Your task to perform on an android device: Open wifi settings Image 0: 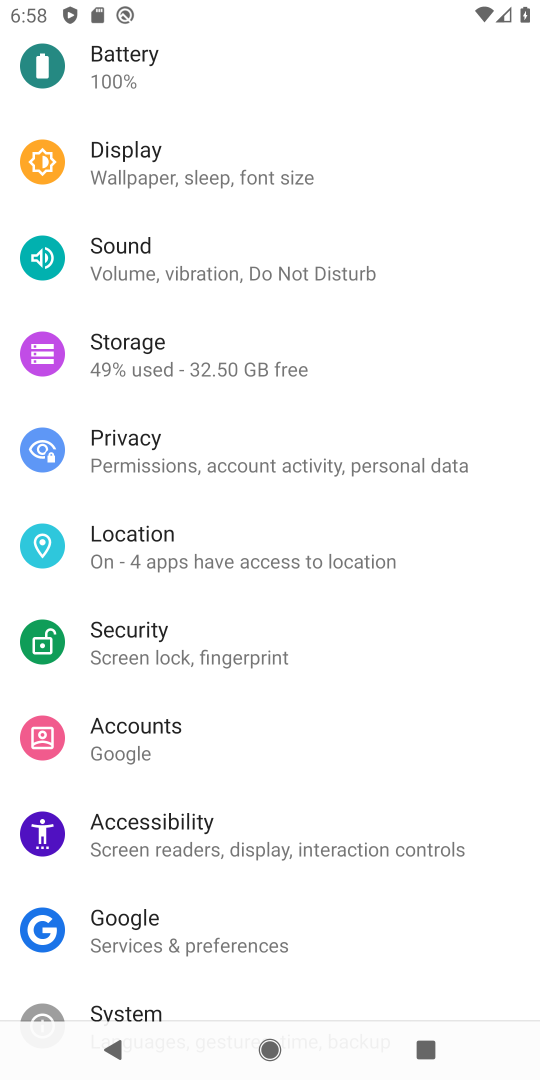
Step 0: drag from (368, 360) to (213, 807)
Your task to perform on an android device: Open wifi settings Image 1: 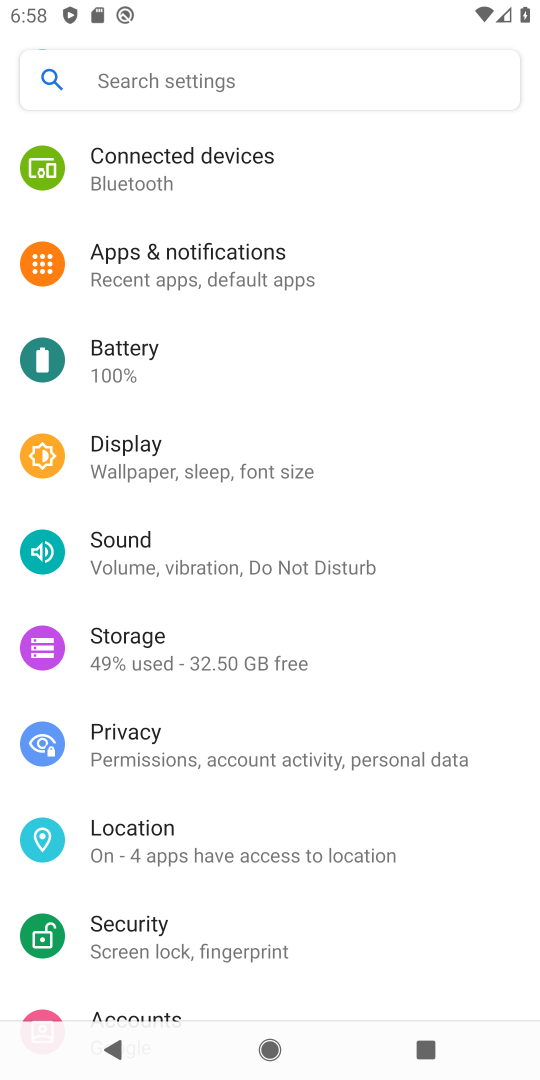
Step 1: drag from (234, 200) to (217, 624)
Your task to perform on an android device: Open wifi settings Image 2: 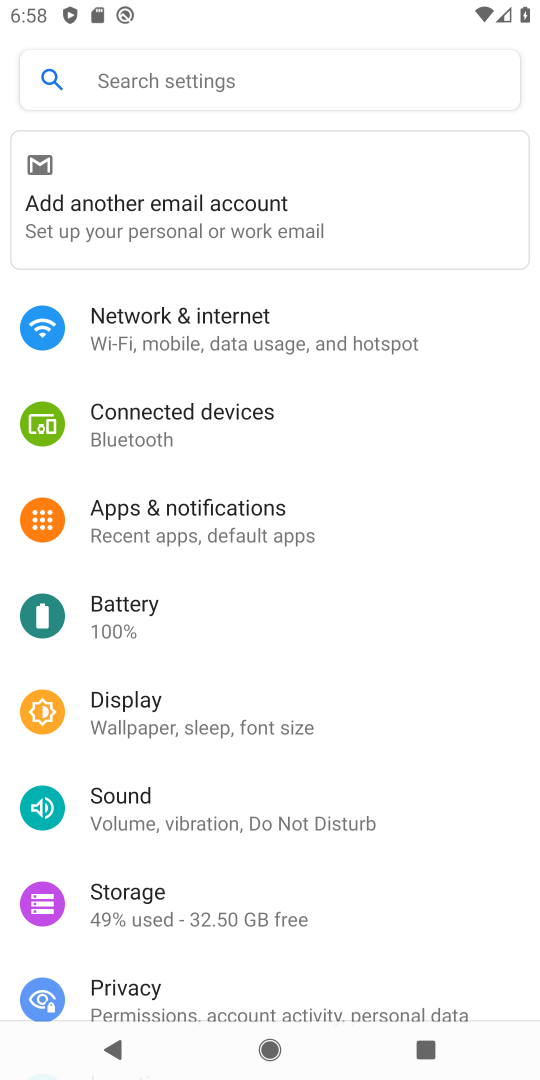
Step 2: click (190, 320)
Your task to perform on an android device: Open wifi settings Image 3: 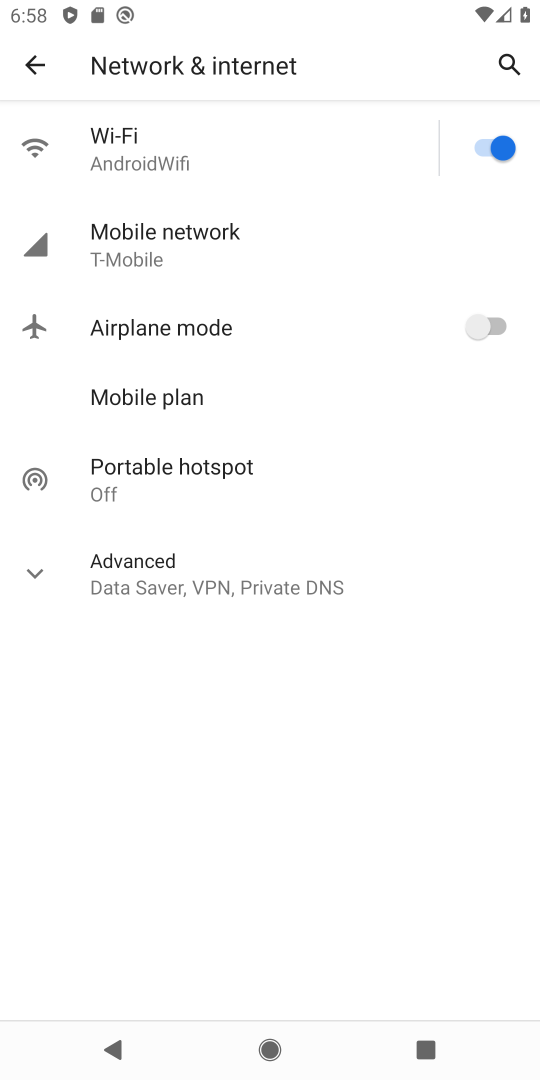
Step 3: click (126, 138)
Your task to perform on an android device: Open wifi settings Image 4: 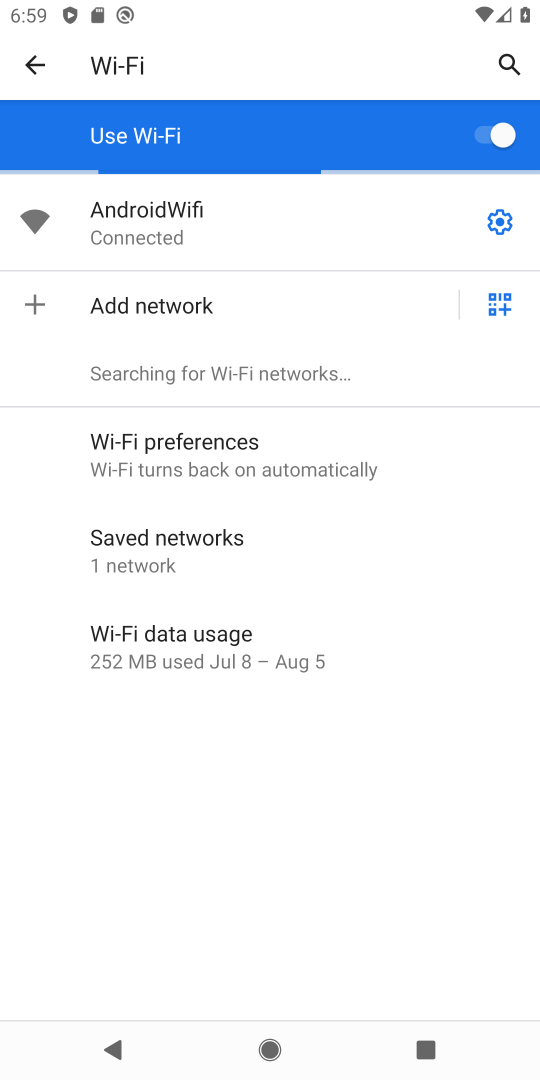
Step 4: task complete